Your task to perform on an android device: Go to ESPN.com Image 0: 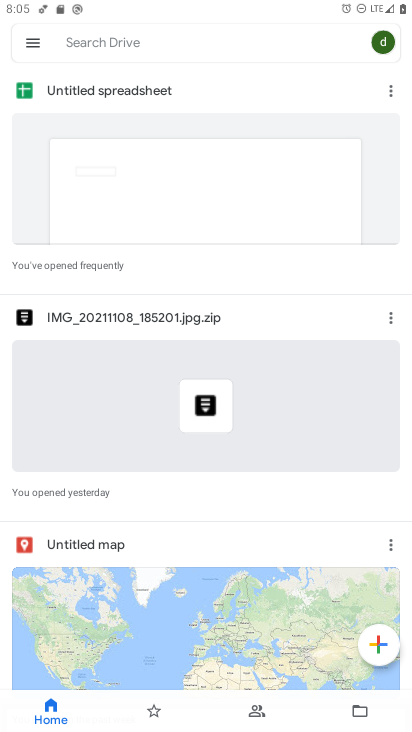
Step 0: press home button
Your task to perform on an android device: Go to ESPN.com Image 1: 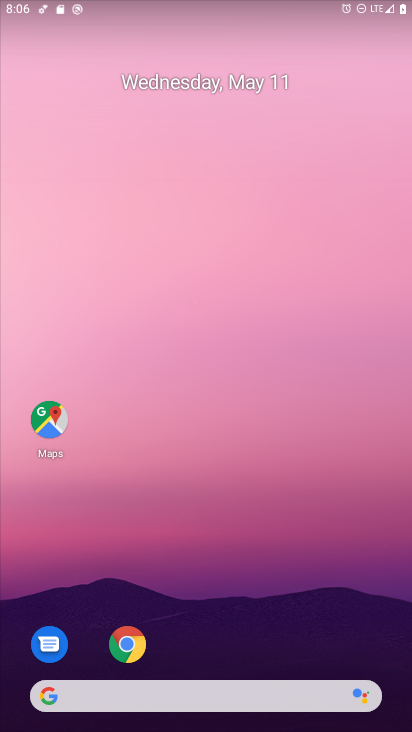
Step 1: click (123, 650)
Your task to perform on an android device: Go to ESPN.com Image 2: 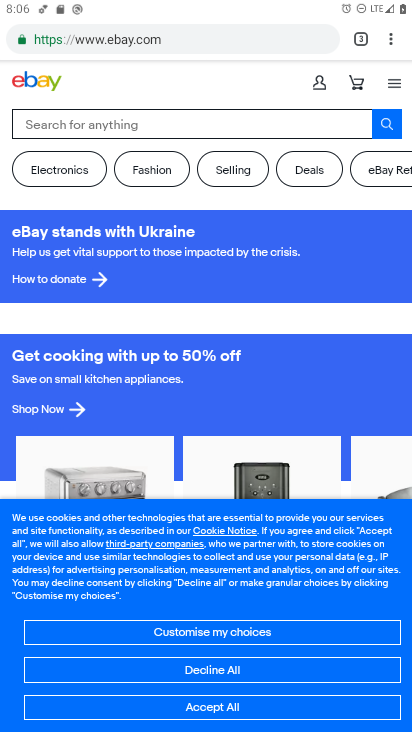
Step 2: click (386, 39)
Your task to perform on an android device: Go to ESPN.com Image 3: 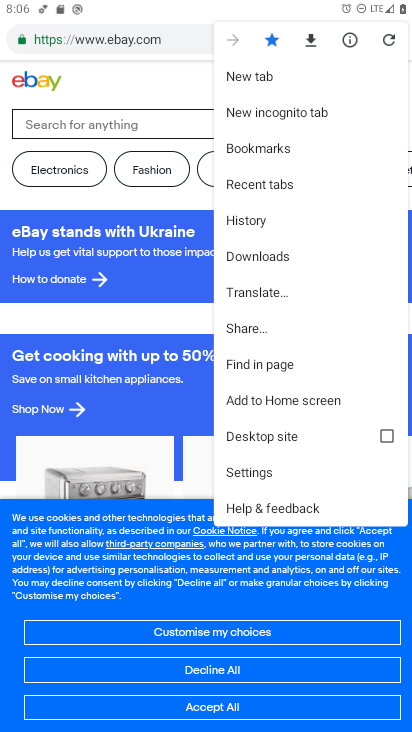
Step 3: click (258, 78)
Your task to perform on an android device: Go to ESPN.com Image 4: 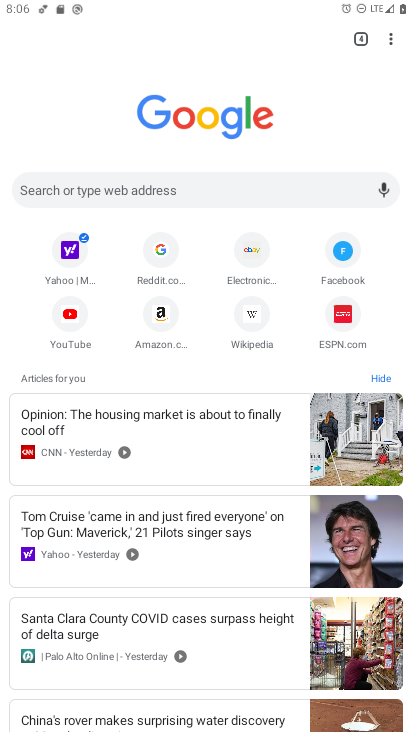
Step 4: click (352, 304)
Your task to perform on an android device: Go to ESPN.com Image 5: 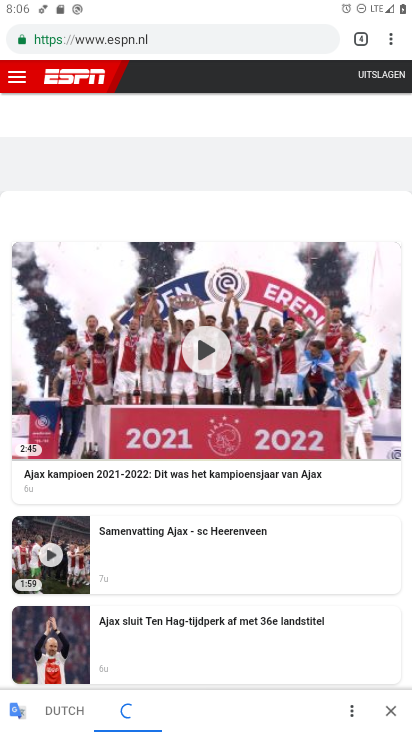
Step 5: task complete